Your task to perform on an android device: Go to internet settings Image 0: 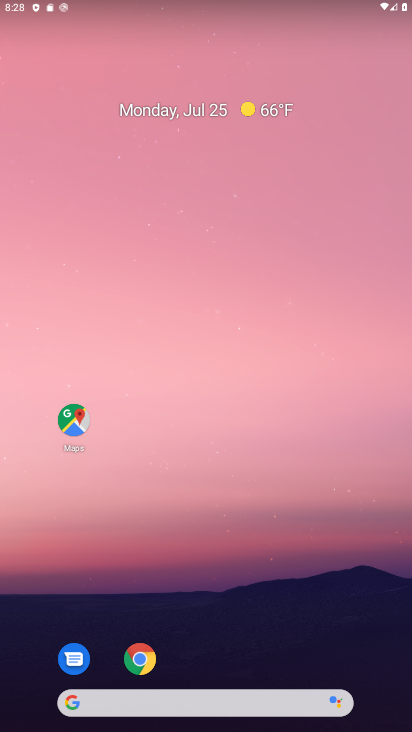
Step 0: drag from (291, 618) to (256, 280)
Your task to perform on an android device: Go to internet settings Image 1: 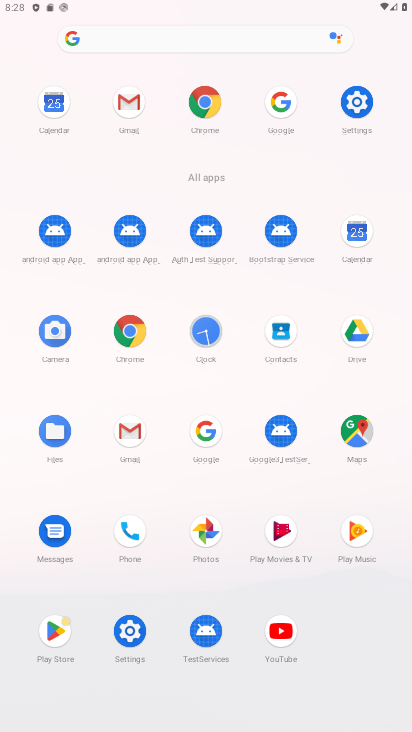
Step 1: click (367, 96)
Your task to perform on an android device: Go to internet settings Image 2: 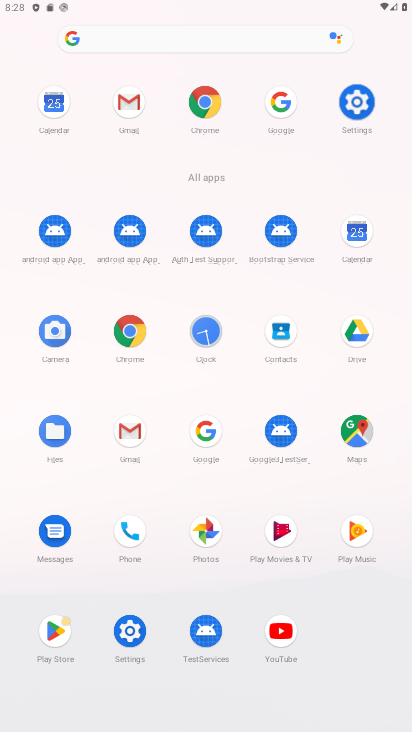
Step 2: click (362, 96)
Your task to perform on an android device: Go to internet settings Image 3: 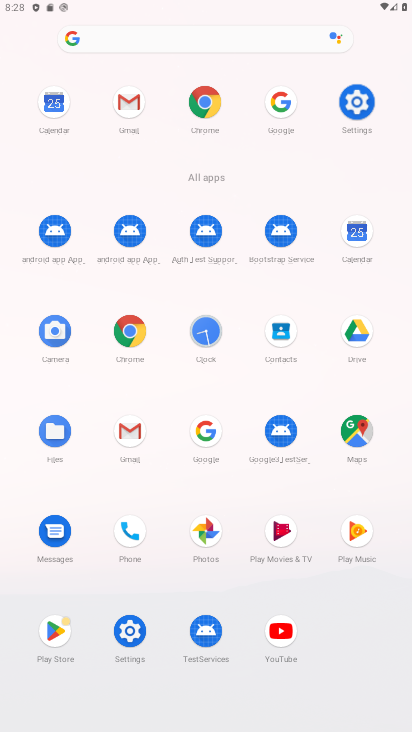
Step 3: click (361, 98)
Your task to perform on an android device: Go to internet settings Image 4: 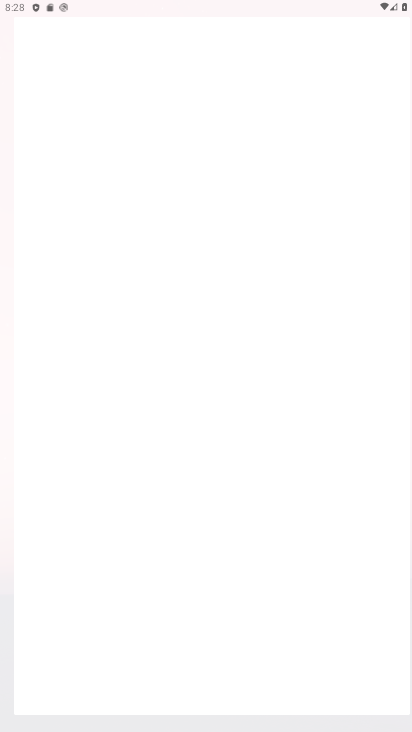
Step 4: click (360, 98)
Your task to perform on an android device: Go to internet settings Image 5: 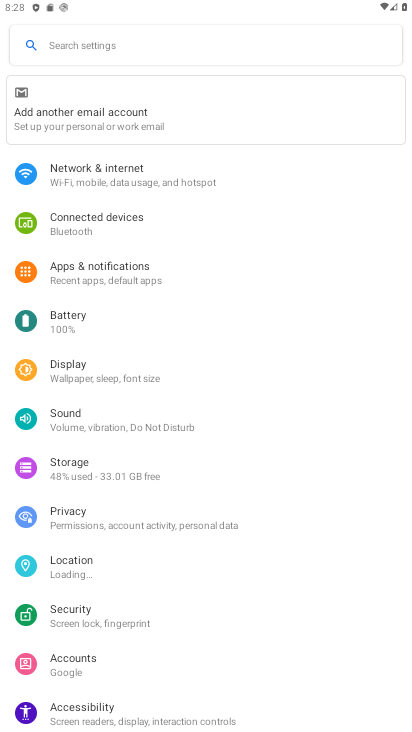
Step 5: click (109, 183)
Your task to perform on an android device: Go to internet settings Image 6: 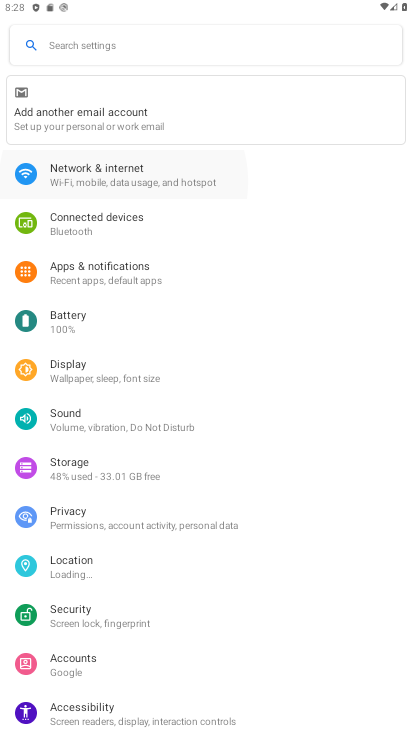
Step 6: click (110, 182)
Your task to perform on an android device: Go to internet settings Image 7: 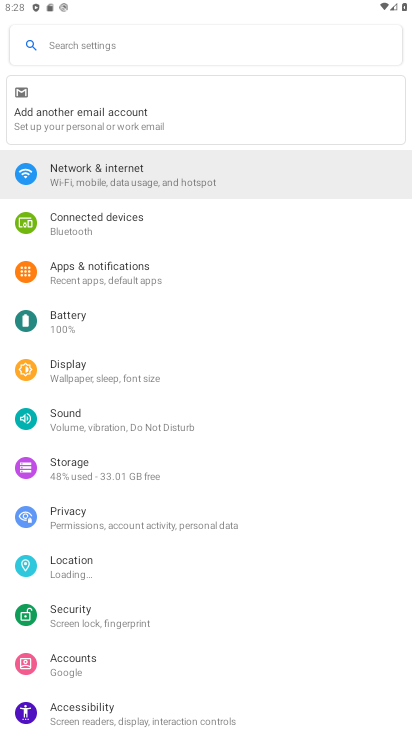
Step 7: click (110, 182)
Your task to perform on an android device: Go to internet settings Image 8: 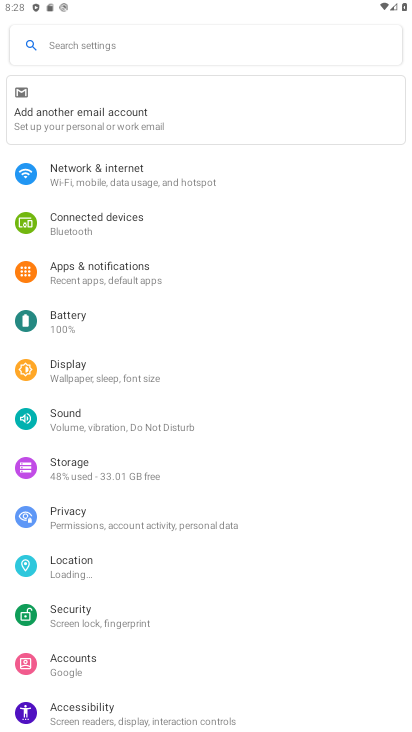
Step 8: click (110, 182)
Your task to perform on an android device: Go to internet settings Image 9: 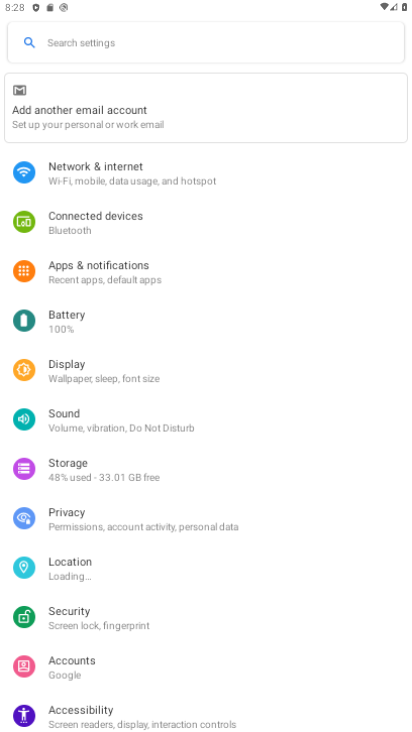
Step 9: click (110, 182)
Your task to perform on an android device: Go to internet settings Image 10: 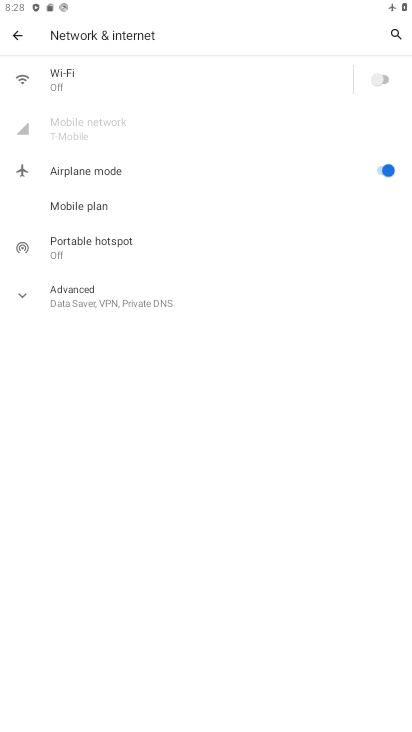
Step 10: task complete